Your task to perform on an android device: Search for bose quietcomfort 35 on costco, select the first entry, add it to the cart, then select checkout. Image 0: 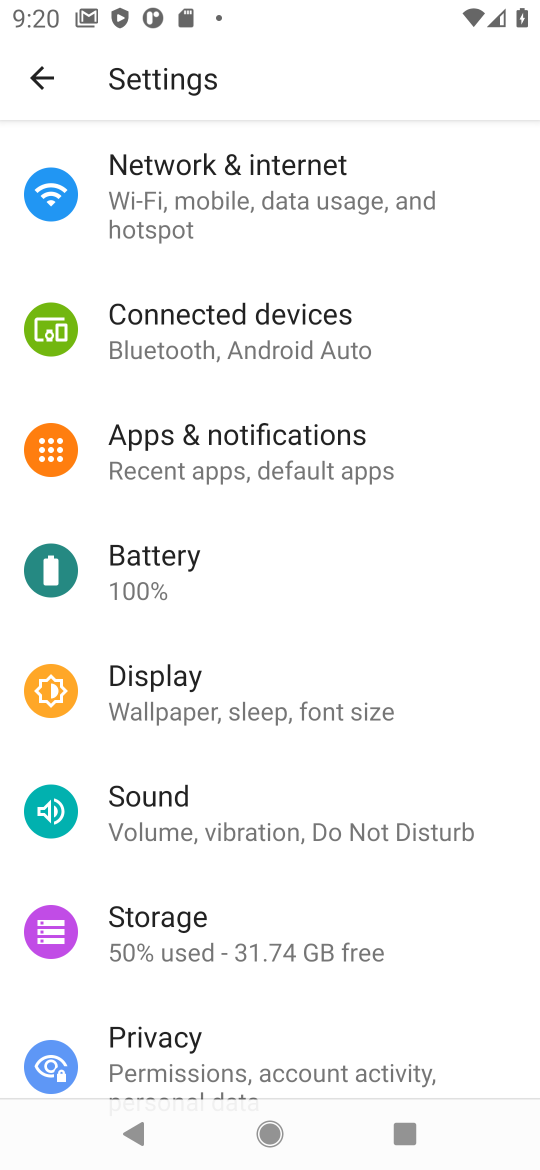
Step 0: press home button
Your task to perform on an android device: Search for bose quietcomfort 35 on costco, select the first entry, add it to the cart, then select checkout. Image 1: 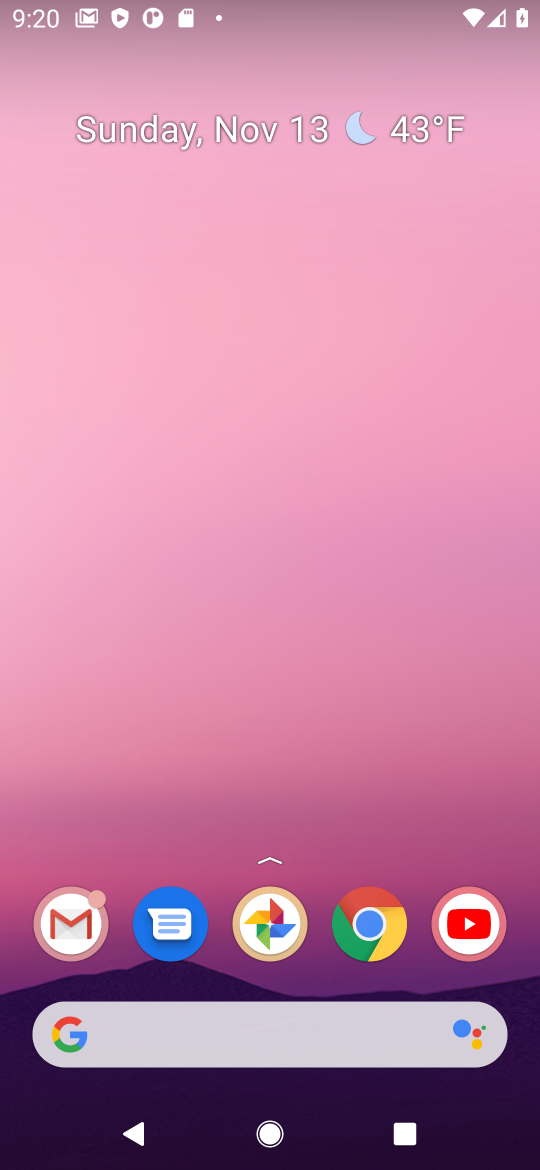
Step 1: click (371, 923)
Your task to perform on an android device: Search for bose quietcomfort 35 on costco, select the first entry, add it to the cart, then select checkout. Image 2: 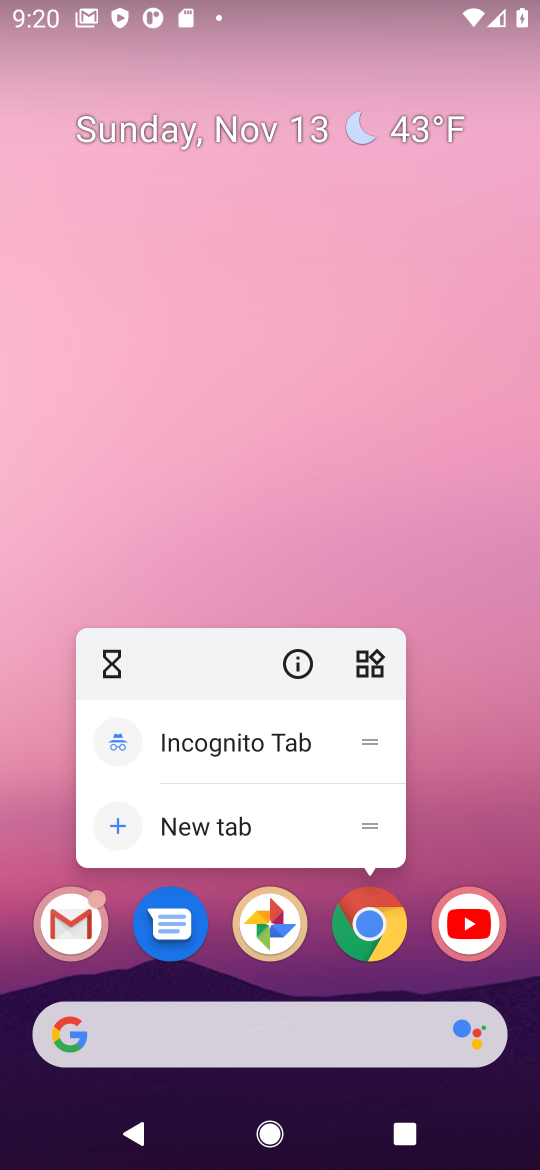
Step 2: click (369, 933)
Your task to perform on an android device: Search for bose quietcomfort 35 on costco, select the first entry, add it to the cart, then select checkout. Image 3: 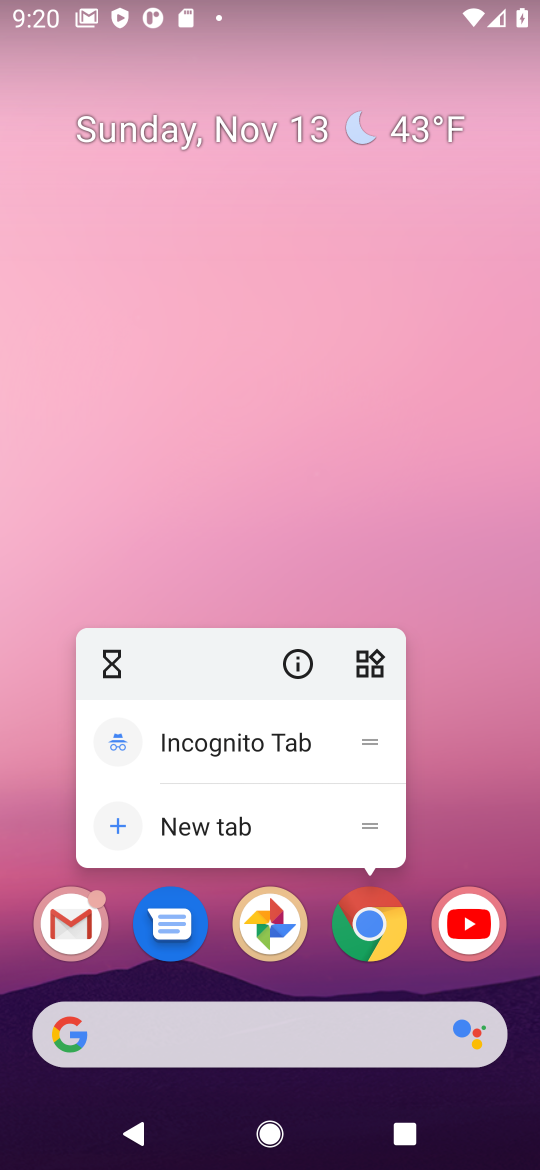
Step 3: click (375, 919)
Your task to perform on an android device: Search for bose quietcomfort 35 on costco, select the first entry, add it to the cart, then select checkout. Image 4: 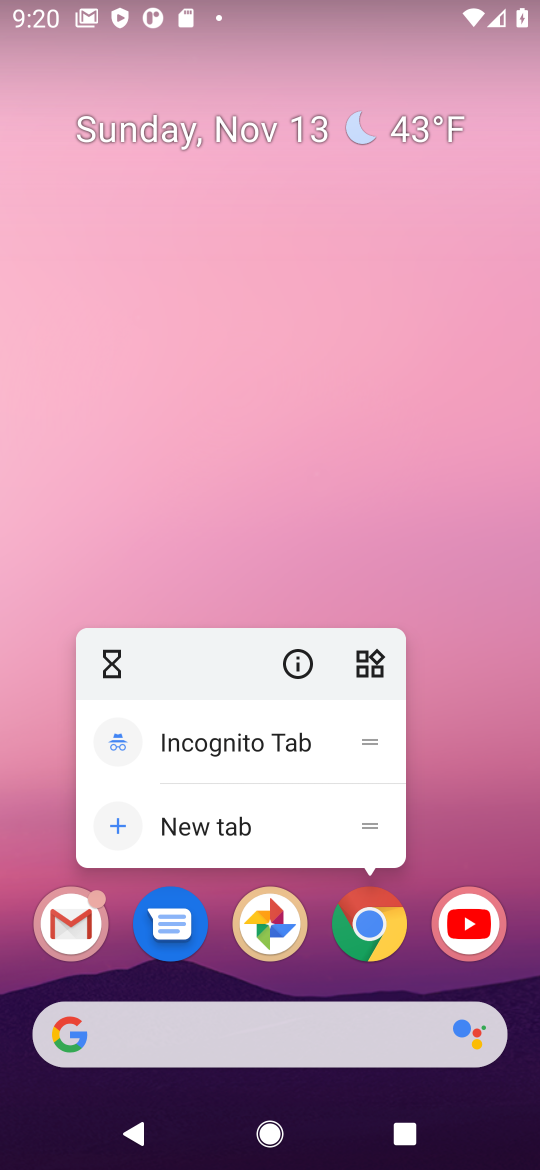
Step 4: click (383, 923)
Your task to perform on an android device: Search for bose quietcomfort 35 on costco, select the first entry, add it to the cart, then select checkout. Image 5: 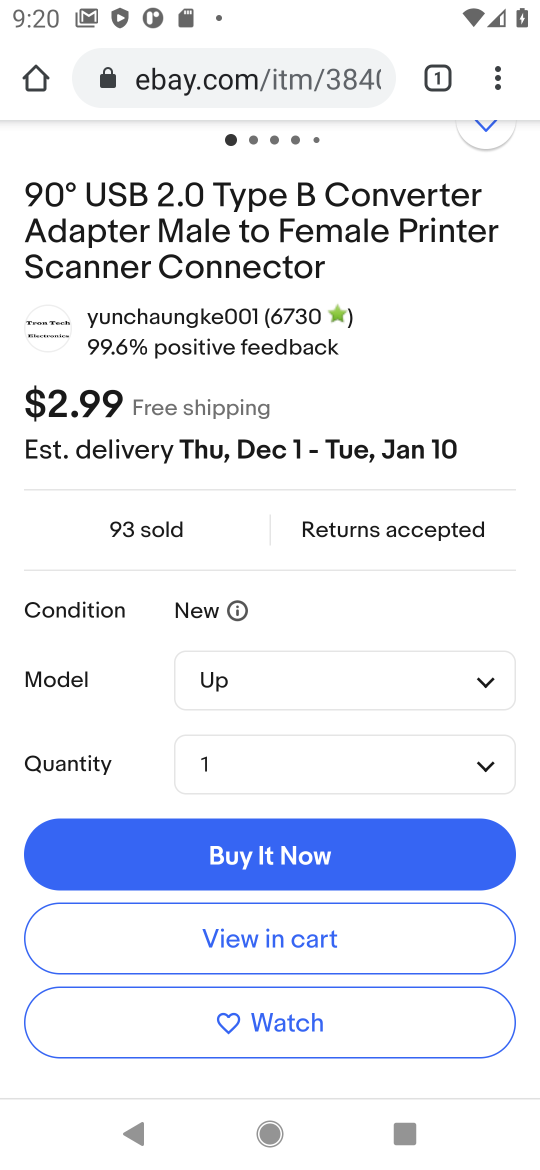
Step 5: click (303, 75)
Your task to perform on an android device: Search for bose quietcomfort 35 on costco, select the first entry, add it to the cart, then select checkout. Image 6: 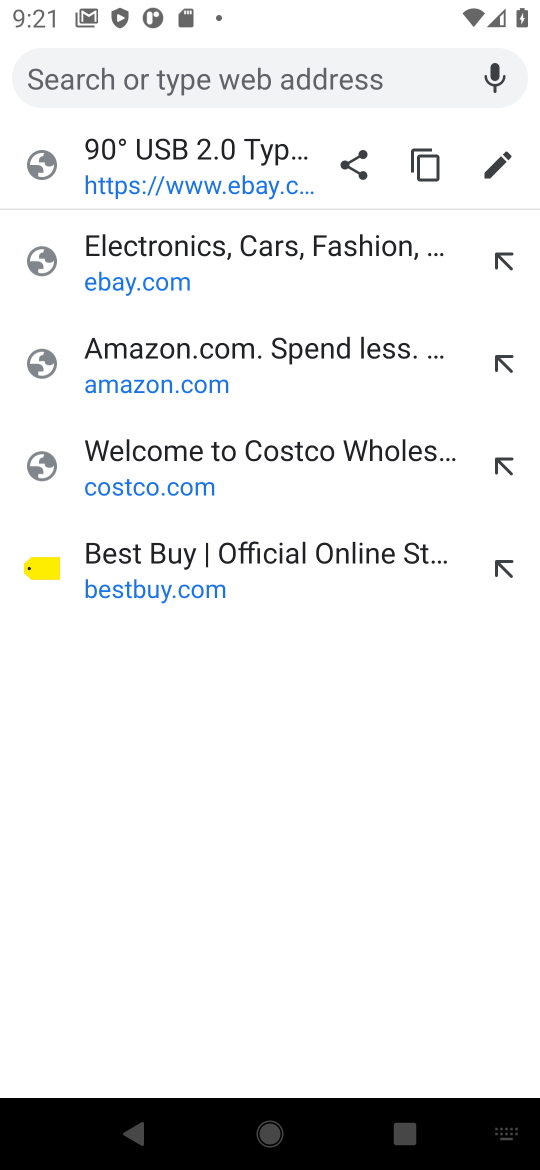
Step 6: type " costco"
Your task to perform on an android device: Search for bose quietcomfort 35 on costco, select the first entry, add it to the cart, then select checkout. Image 7: 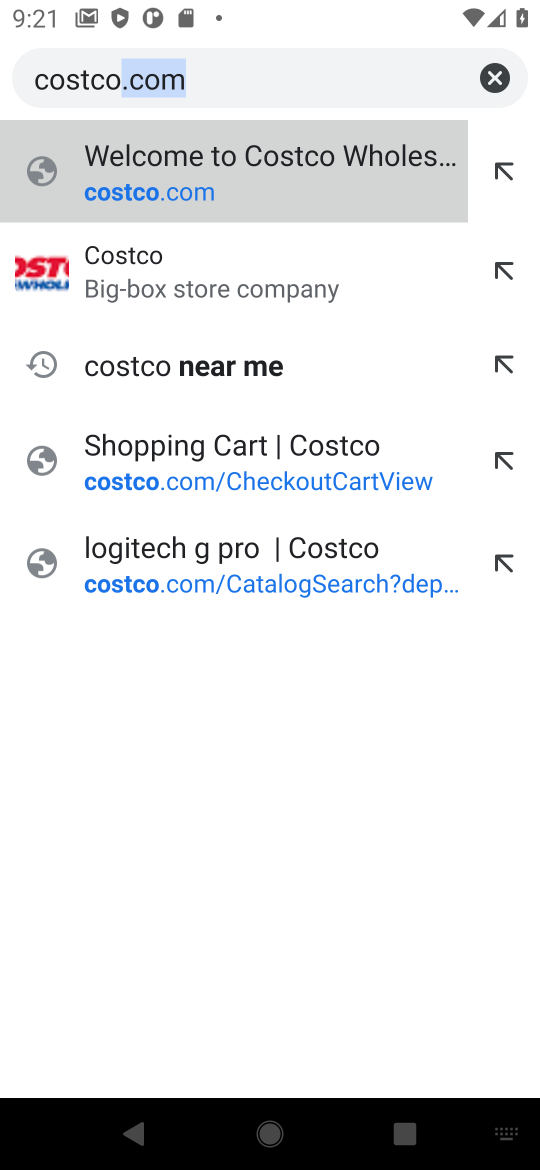
Step 7: press enter
Your task to perform on an android device: Search for bose quietcomfort 35 on costco, select the first entry, add it to the cart, then select checkout. Image 8: 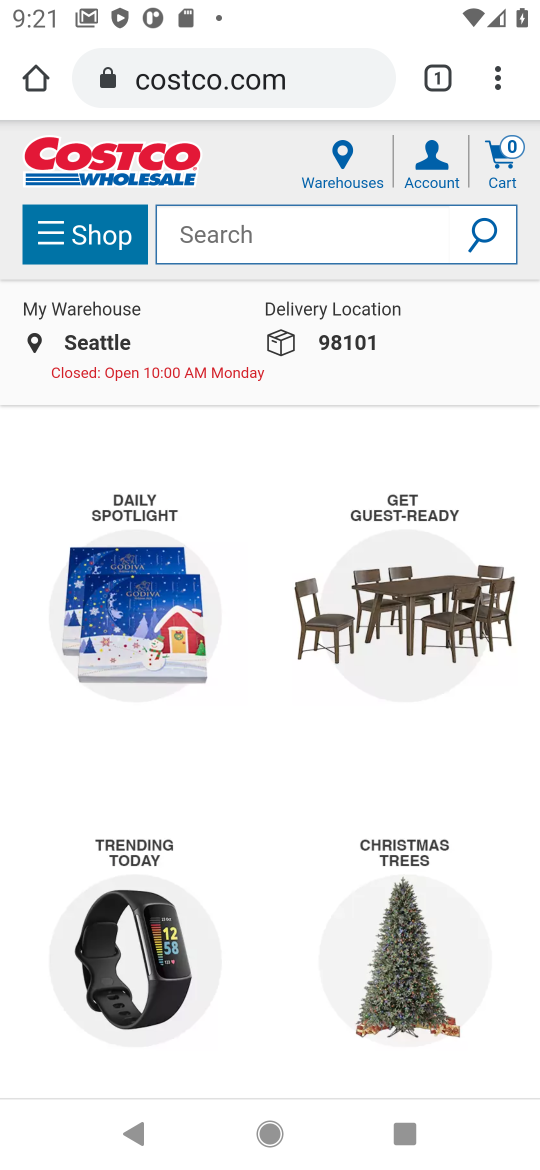
Step 8: click (287, 238)
Your task to perform on an android device: Search for bose quietcomfort 35 on costco, select the first entry, add it to the cart, then select checkout. Image 9: 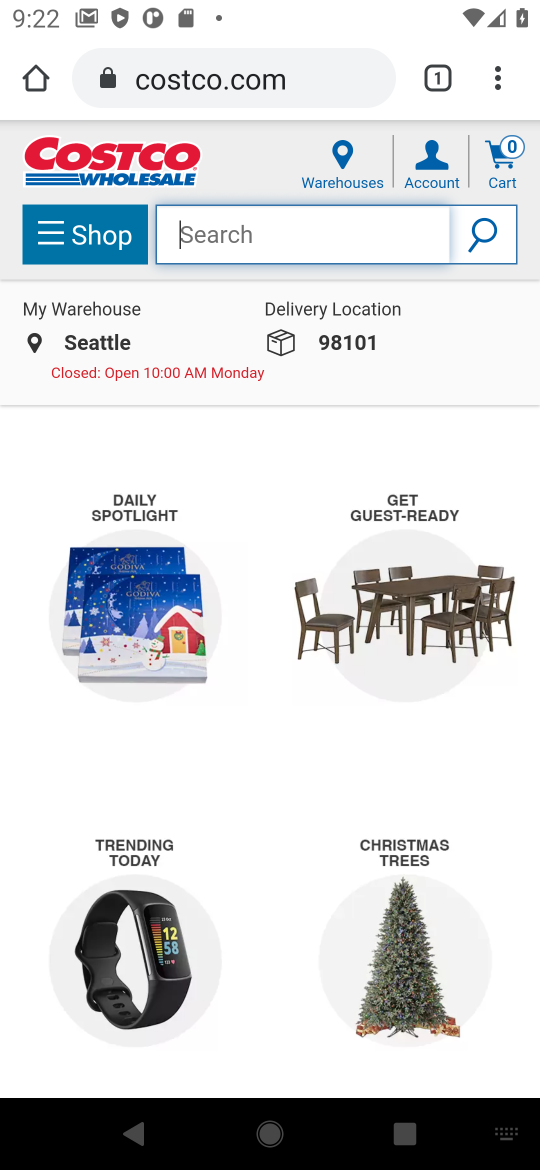
Step 9: type "bose quietcomfort 35"
Your task to perform on an android device: Search for bose quietcomfort 35 on costco, select the first entry, add it to the cart, then select checkout. Image 10: 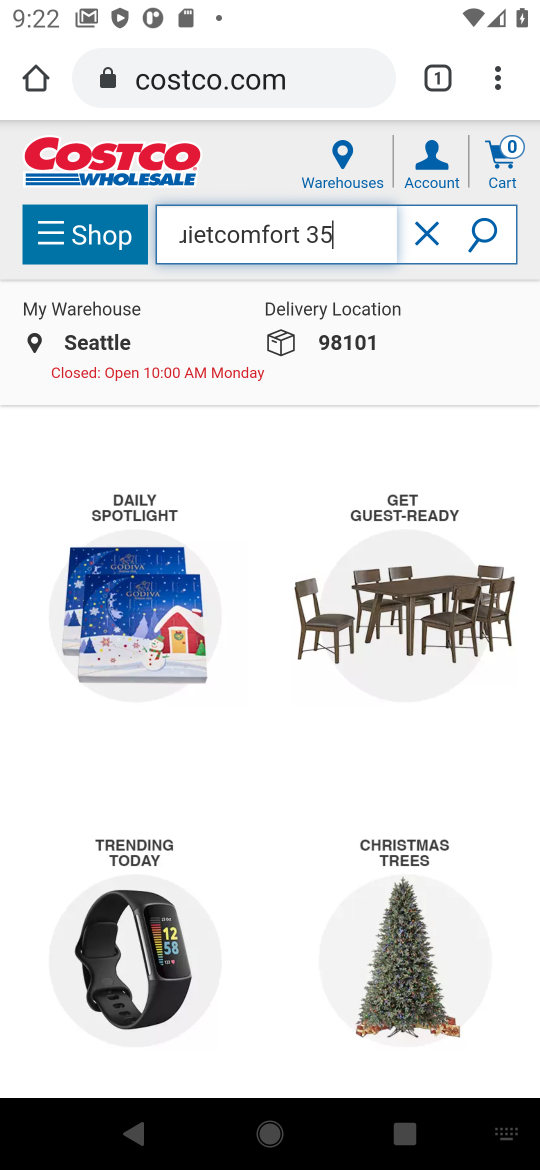
Step 10: press enter
Your task to perform on an android device: Search for bose quietcomfort 35 on costco, select the first entry, add it to the cart, then select checkout. Image 11: 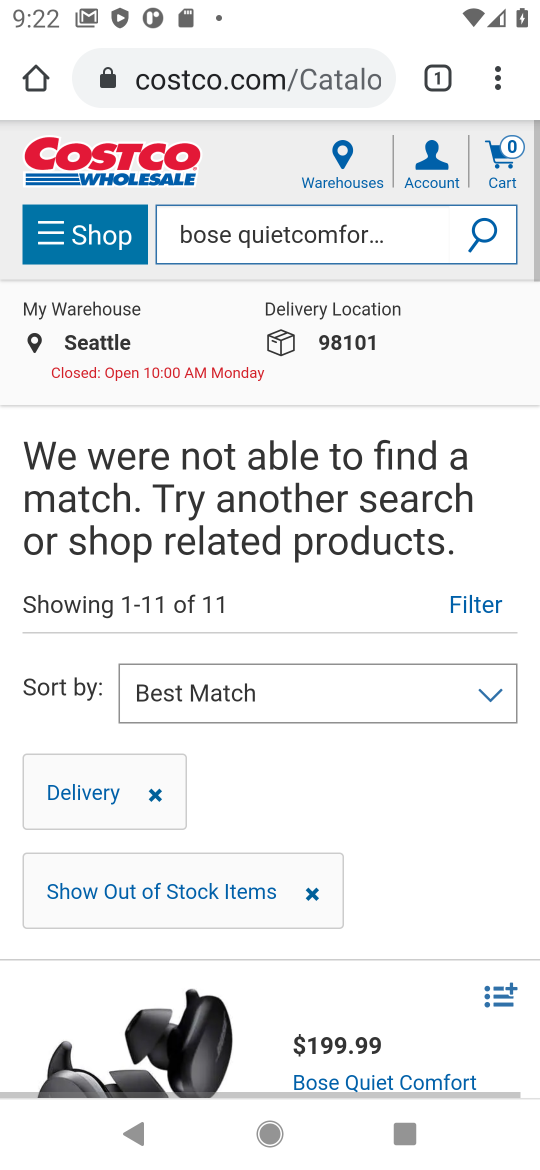
Step 11: task complete